Your task to perform on an android device: change the clock display to analog Image 0: 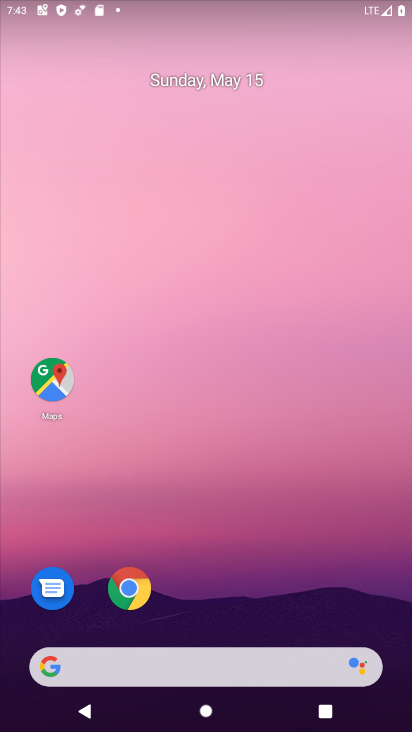
Step 0: drag from (367, 613) to (284, 14)
Your task to perform on an android device: change the clock display to analog Image 1: 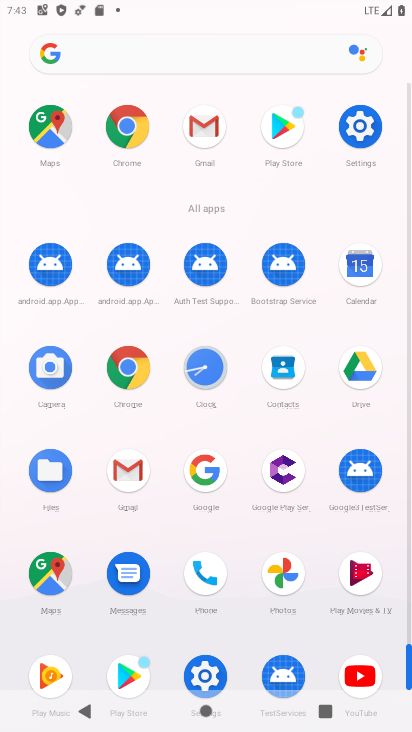
Step 1: click (197, 372)
Your task to perform on an android device: change the clock display to analog Image 2: 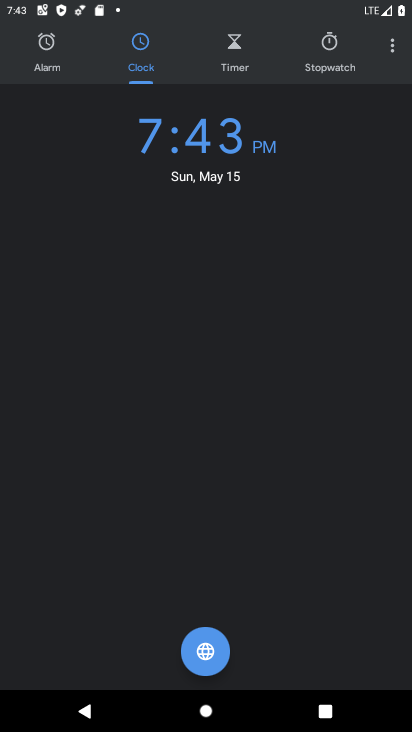
Step 2: click (392, 48)
Your task to perform on an android device: change the clock display to analog Image 3: 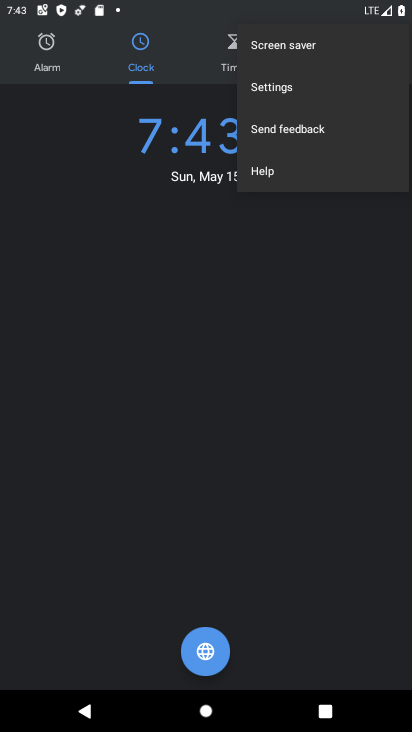
Step 3: click (304, 95)
Your task to perform on an android device: change the clock display to analog Image 4: 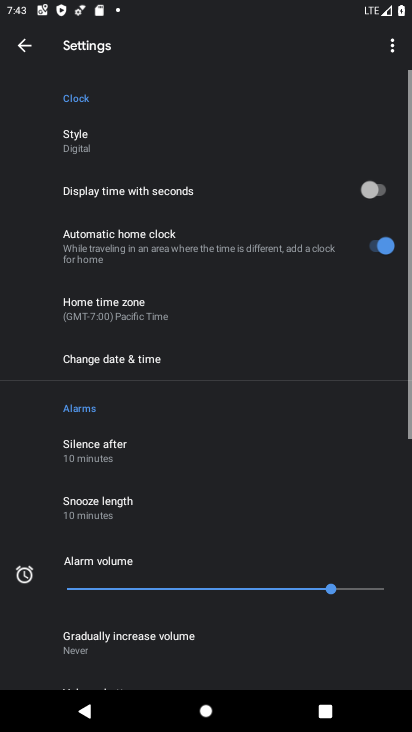
Step 4: click (160, 136)
Your task to perform on an android device: change the clock display to analog Image 5: 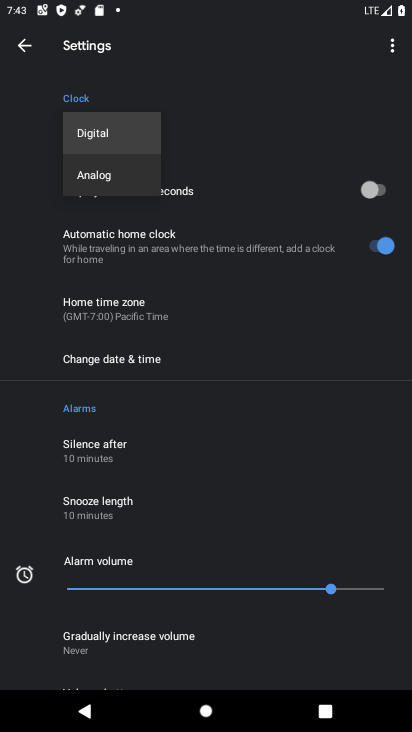
Step 5: click (122, 177)
Your task to perform on an android device: change the clock display to analog Image 6: 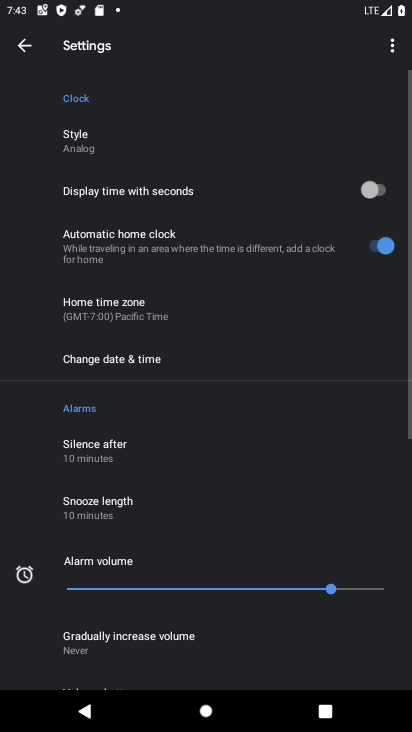
Step 6: task complete